Your task to perform on an android device: Go to ESPN.com Image 0: 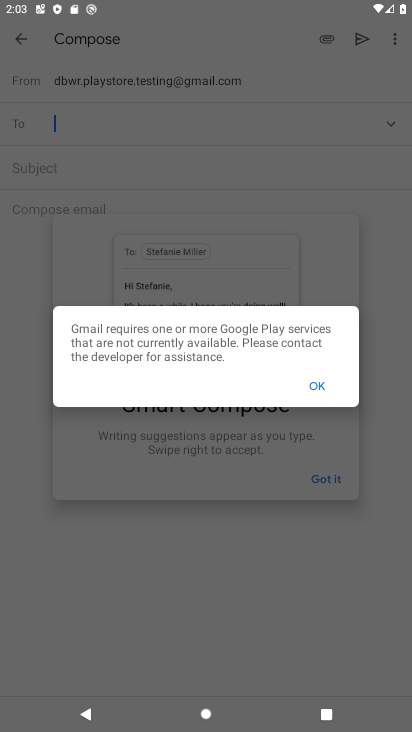
Step 0: press home button
Your task to perform on an android device: Go to ESPN.com Image 1: 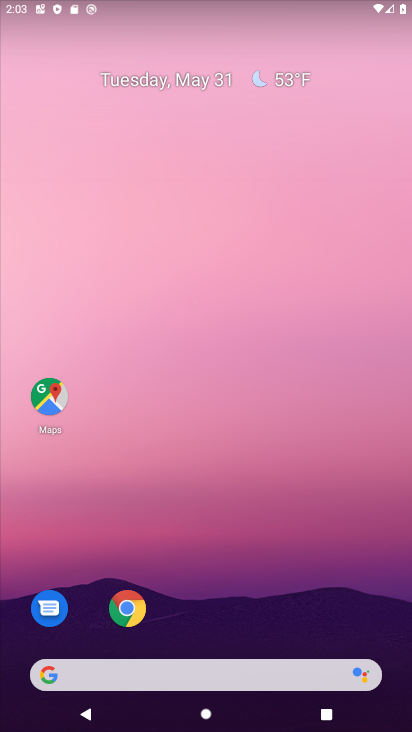
Step 1: click (199, 674)
Your task to perform on an android device: Go to ESPN.com Image 2: 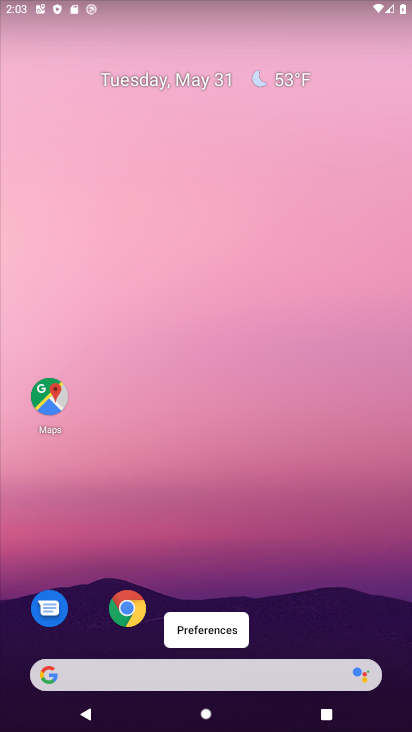
Step 2: click (183, 669)
Your task to perform on an android device: Go to ESPN.com Image 3: 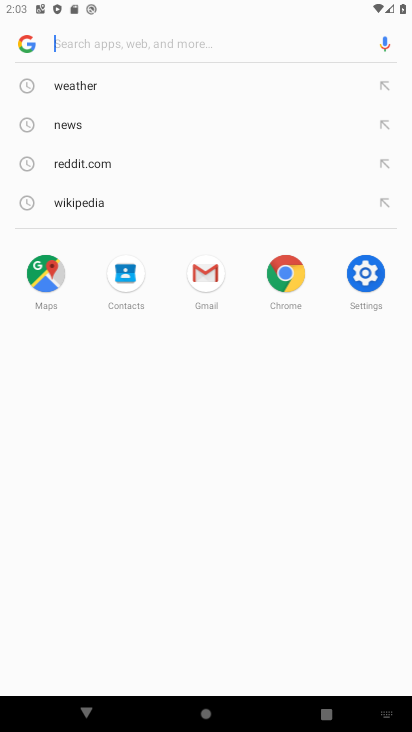
Step 3: type "ESPN.com"
Your task to perform on an android device: Go to ESPN.com Image 4: 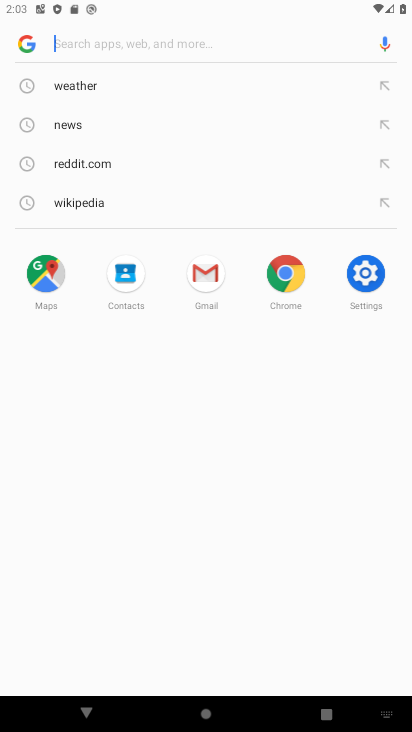
Step 4: click (157, 45)
Your task to perform on an android device: Go to ESPN.com Image 5: 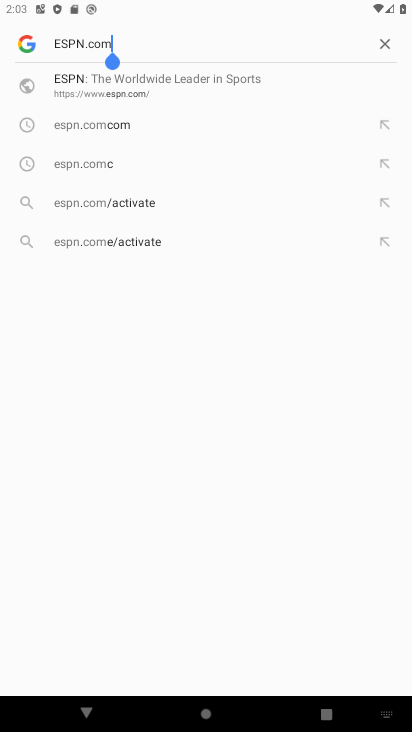
Step 5: click (53, 84)
Your task to perform on an android device: Go to ESPN.com Image 6: 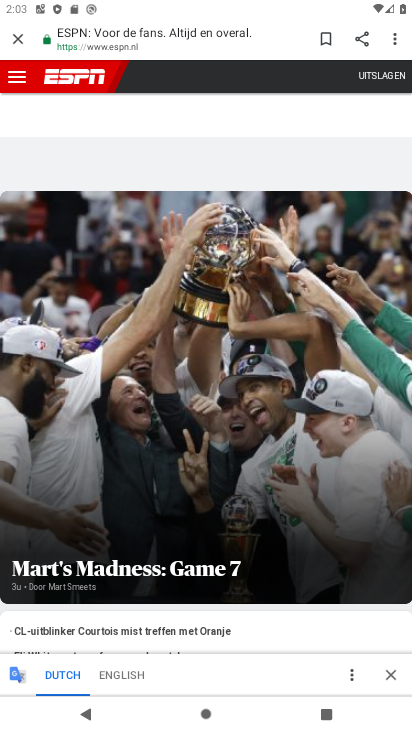
Step 6: task complete